Your task to perform on an android device: Open Google Image 0: 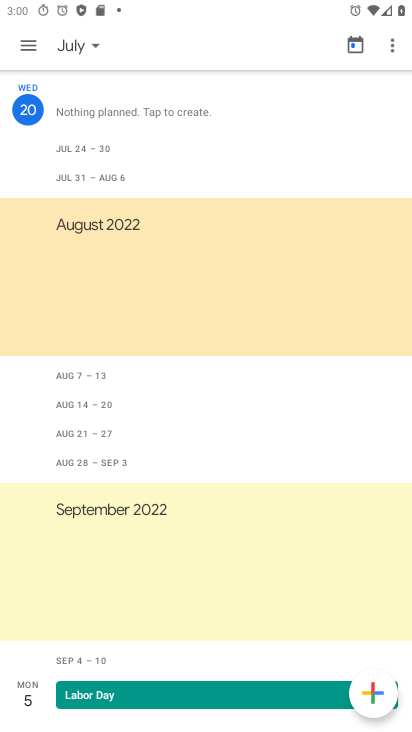
Step 0: press home button
Your task to perform on an android device: Open Google Image 1: 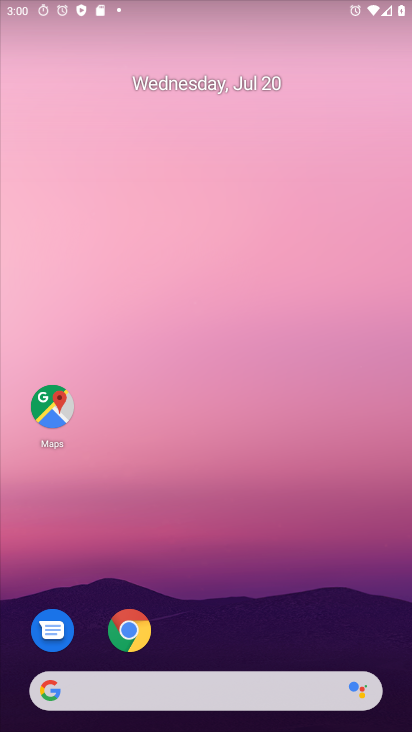
Step 1: drag from (45, 543) to (250, 112)
Your task to perform on an android device: Open Google Image 2: 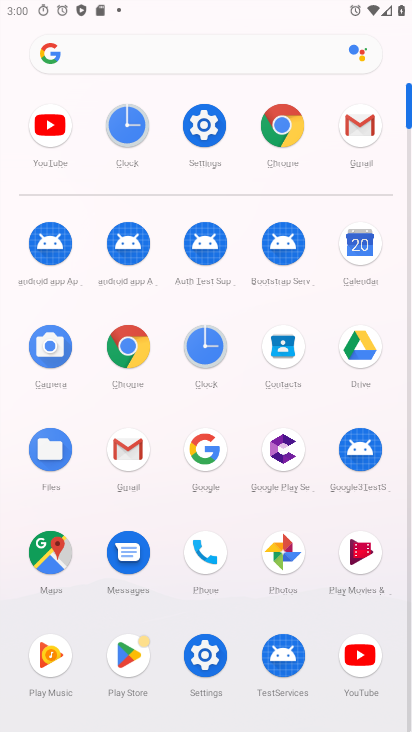
Step 2: click (192, 442)
Your task to perform on an android device: Open Google Image 3: 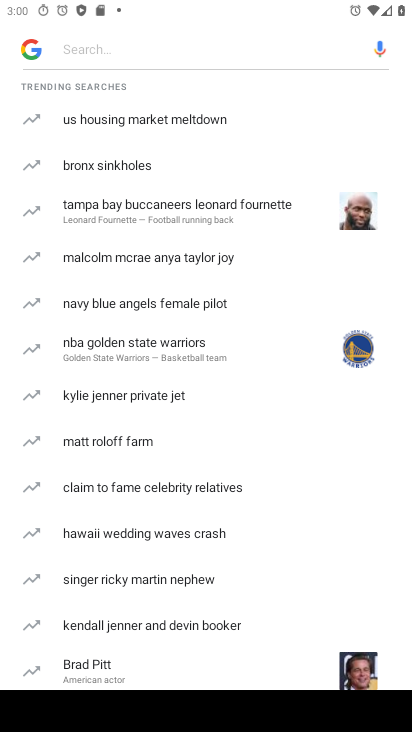
Step 3: click (22, 53)
Your task to perform on an android device: Open Google Image 4: 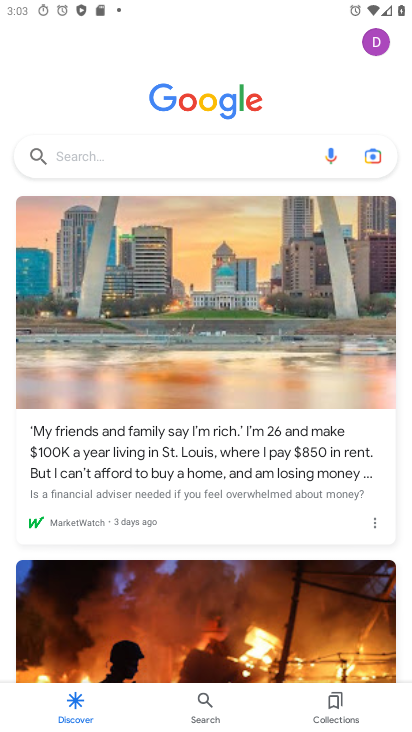
Step 4: task complete